Your task to perform on an android device: Open Reddit.com Image 0: 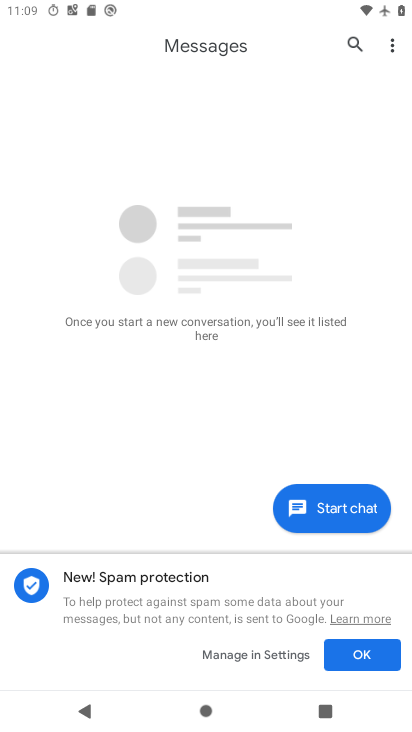
Step 0: press home button
Your task to perform on an android device: Open Reddit.com Image 1: 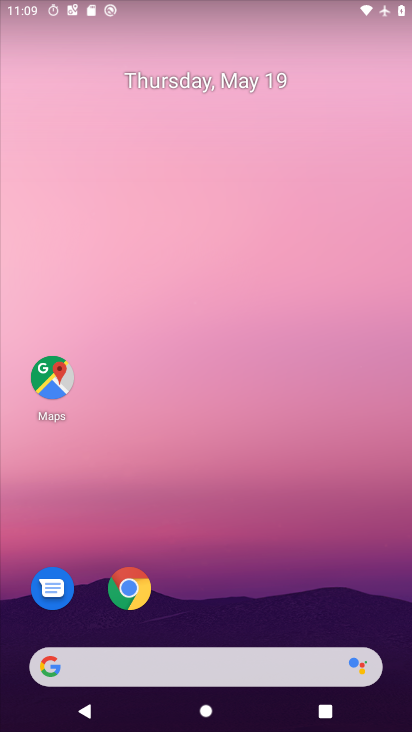
Step 1: click (120, 588)
Your task to perform on an android device: Open Reddit.com Image 2: 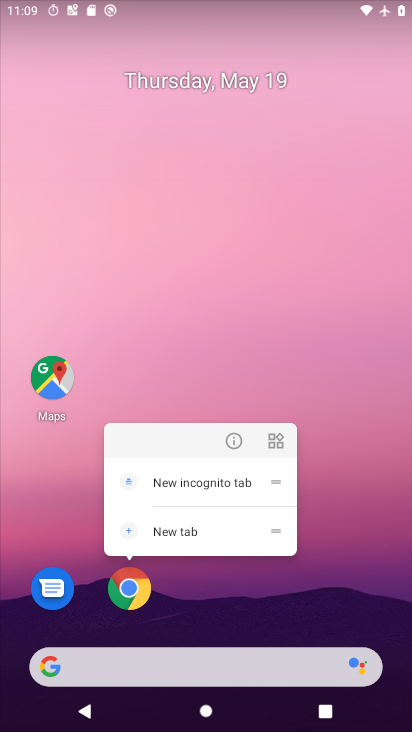
Step 2: click (136, 593)
Your task to perform on an android device: Open Reddit.com Image 3: 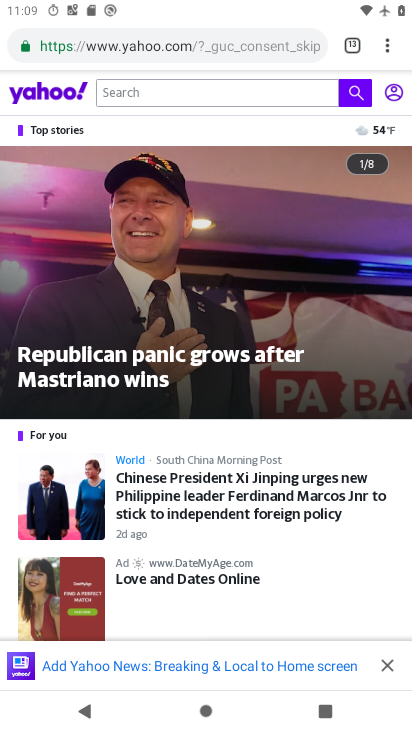
Step 3: drag from (385, 45) to (264, 95)
Your task to perform on an android device: Open Reddit.com Image 4: 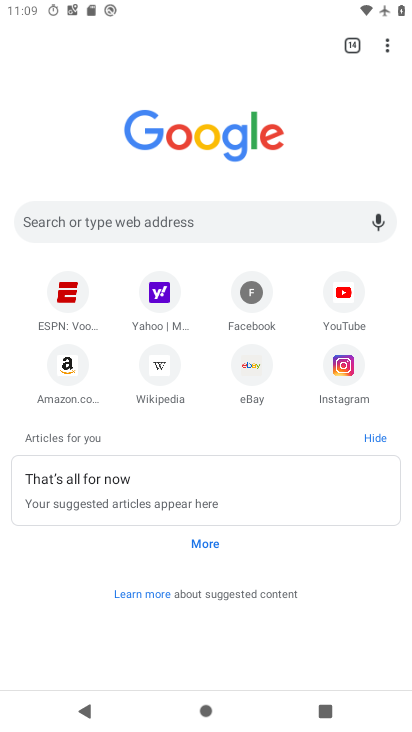
Step 4: click (139, 209)
Your task to perform on an android device: Open Reddit.com Image 5: 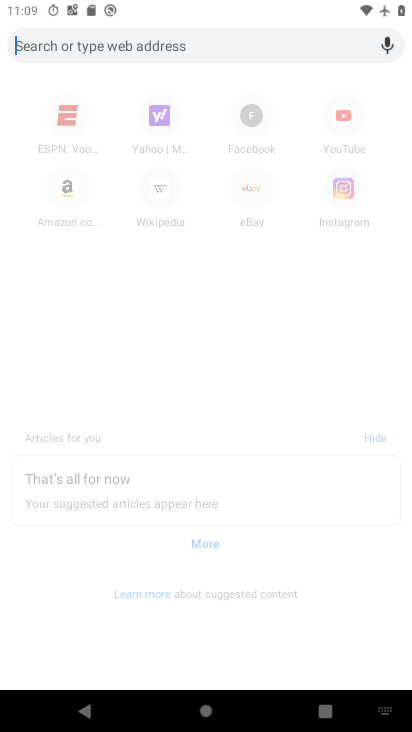
Step 5: type "reddit.com"
Your task to perform on an android device: Open Reddit.com Image 6: 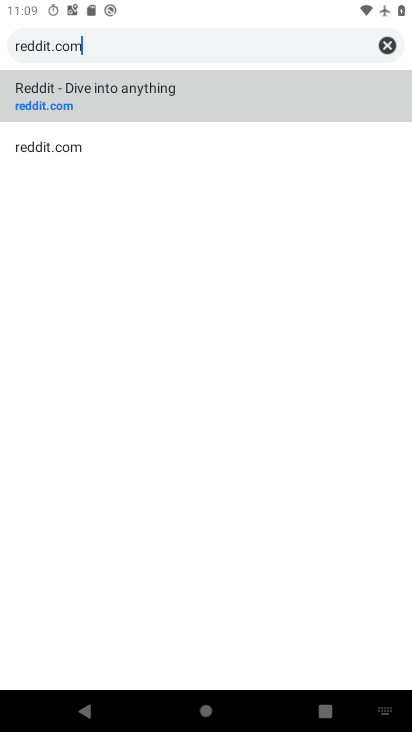
Step 6: click (133, 93)
Your task to perform on an android device: Open Reddit.com Image 7: 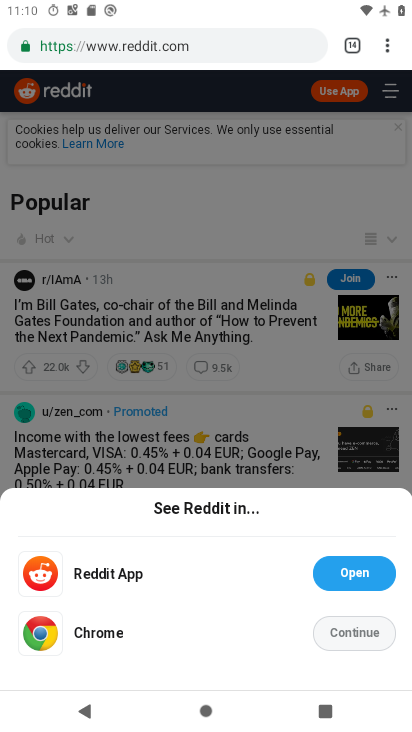
Step 7: task complete